Your task to perform on an android device: Open Google Maps Image 0: 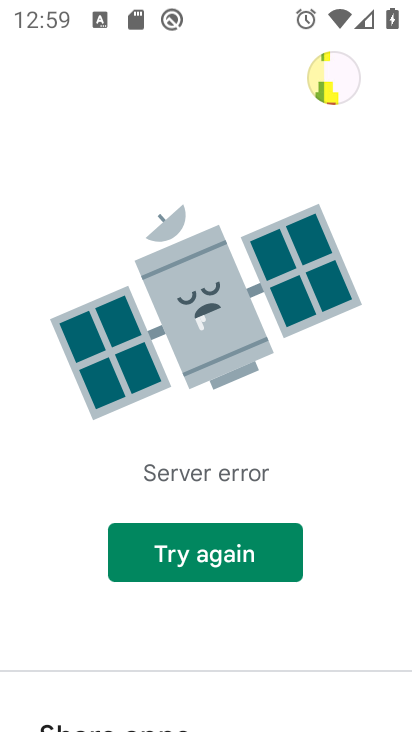
Step 0: press home button
Your task to perform on an android device: Open Google Maps Image 1: 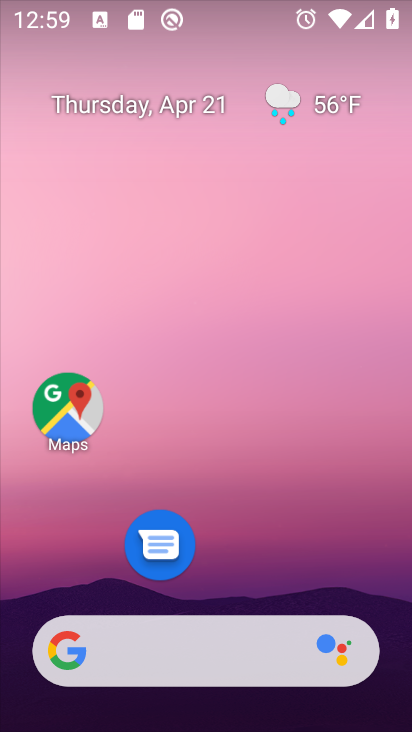
Step 1: drag from (237, 566) to (277, 262)
Your task to perform on an android device: Open Google Maps Image 2: 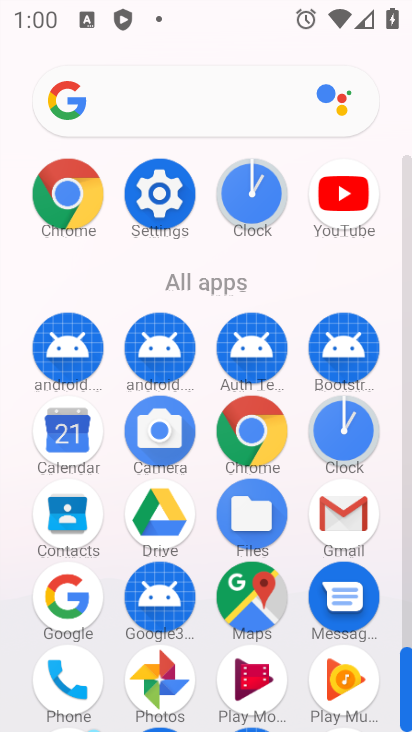
Step 2: drag from (298, 431) to (344, 124)
Your task to perform on an android device: Open Google Maps Image 3: 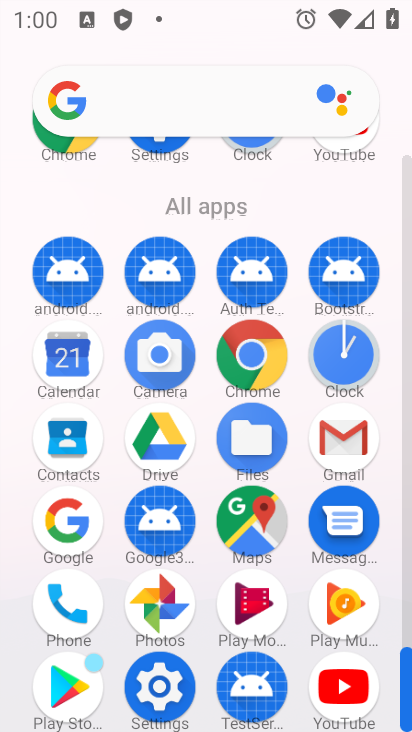
Step 3: click (279, 507)
Your task to perform on an android device: Open Google Maps Image 4: 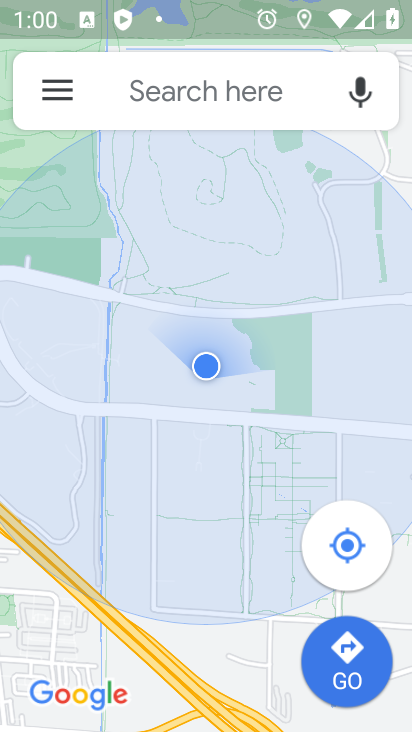
Step 4: task complete